Your task to perform on an android device: open a bookmark in the chrome app Image 0: 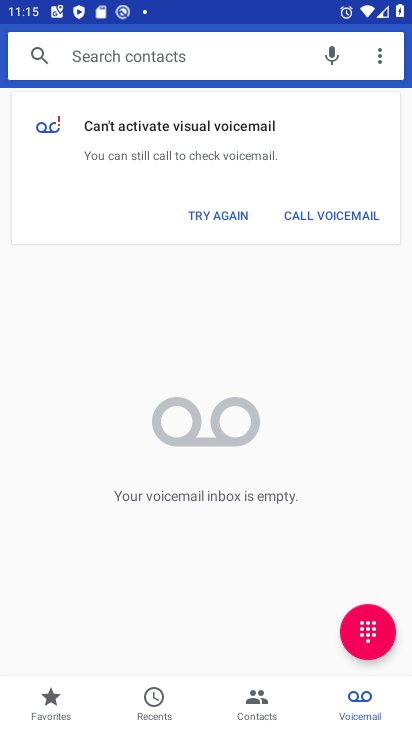
Step 0: press home button
Your task to perform on an android device: open a bookmark in the chrome app Image 1: 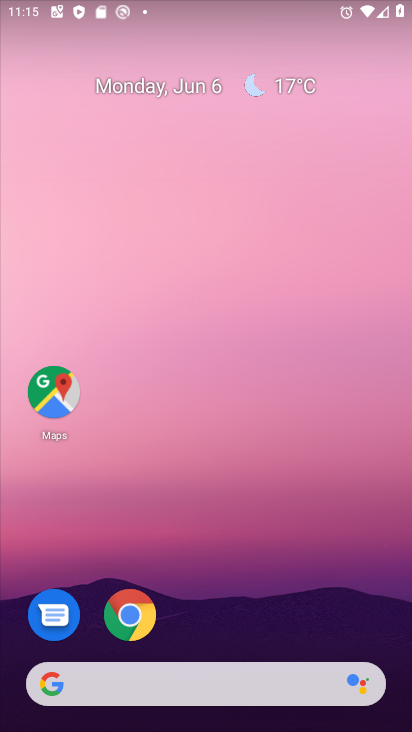
Step 1: click (130, 617)
Your task to perform on an android device: open a bookmark in the chrome app Image 2: 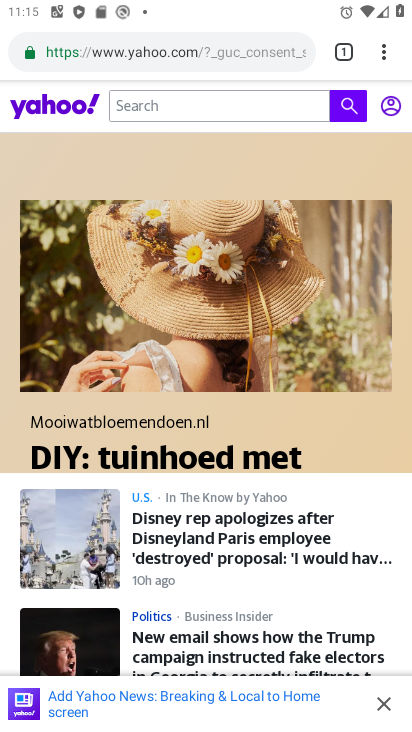
Step 2: click (382, 45)
Your task to perform on an android device: open a bookmark in the chrome app Image 3: 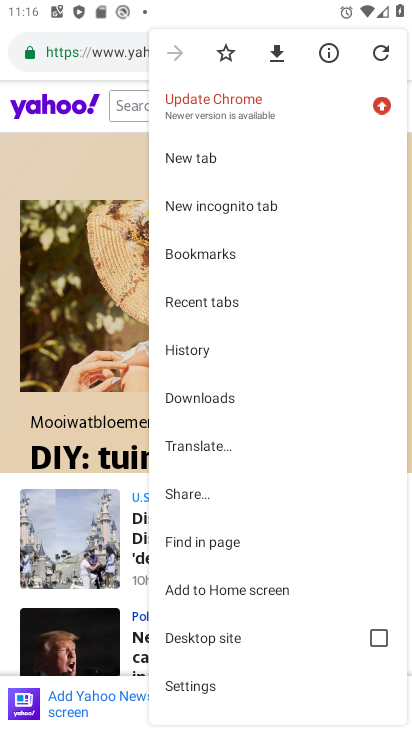
Step 3: click (239, 254)
Your task to perform on an android device: open a bookmark in the chrome app Image 4: 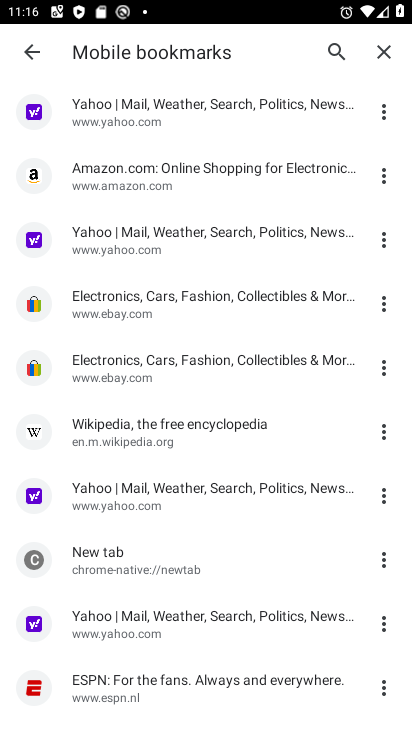
Step 4: click (140, 310)
Your task to perform on an android device: open a bookmark in the chrome app Image 5: 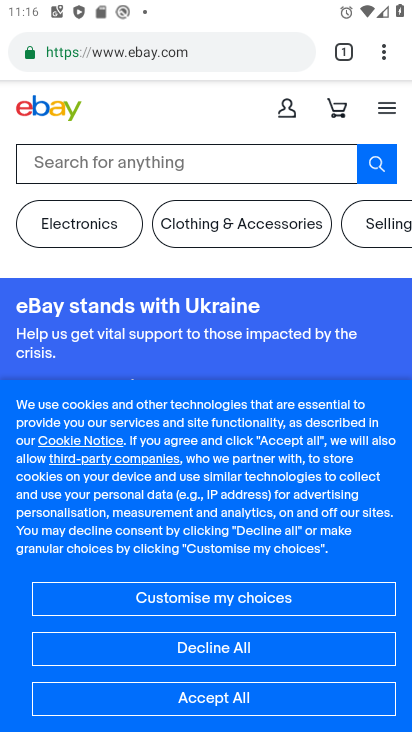
Step 5: task complete